Your task to perform on an android device: Open a new Chrome window Image 0: 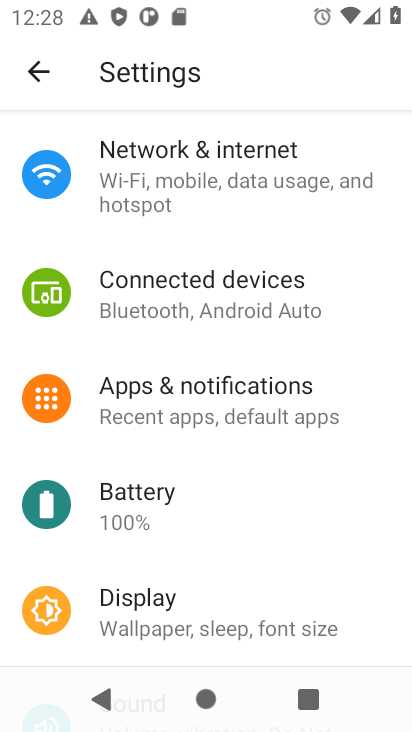
Step 0: press home button
Your task to perform on an android device: Open a new Chrome window Image 1: 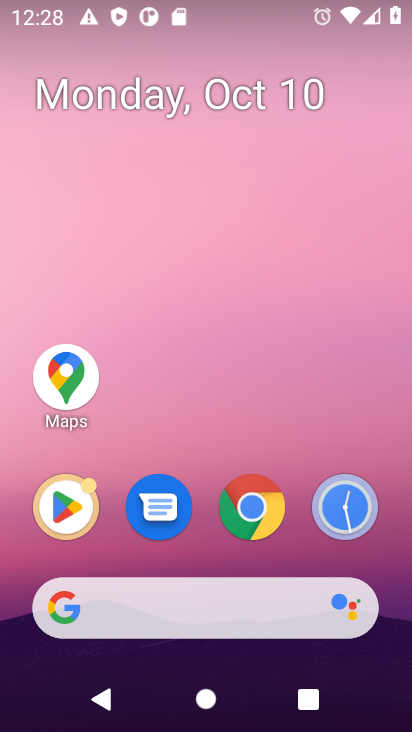
Step 1: drag from (392, 567) to (383, 120)
Your task to perform on an android device: Open a new Chrome window Image 2: 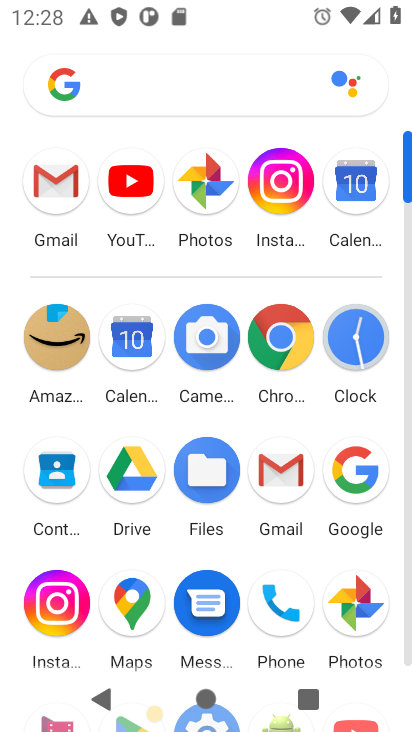
Step 2: click (279, 343)
Your task to perform on an android device: Open a new Chrome window Image 3: 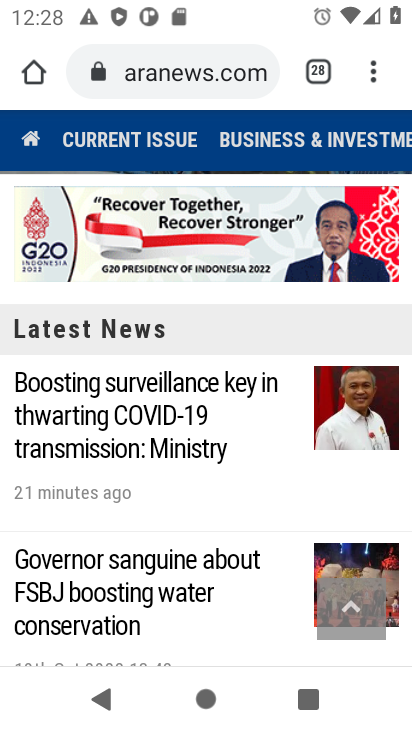
Step 3: click (370, 75)
Your task to perform on an android device: Open a new Chrome window Image 4: 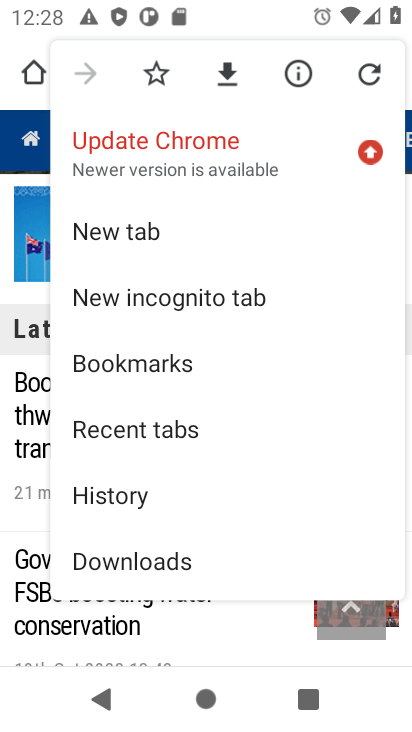
Step 4: click (119, 234)
Your task to perform on an android device: Open a new Chrome window Image 5: 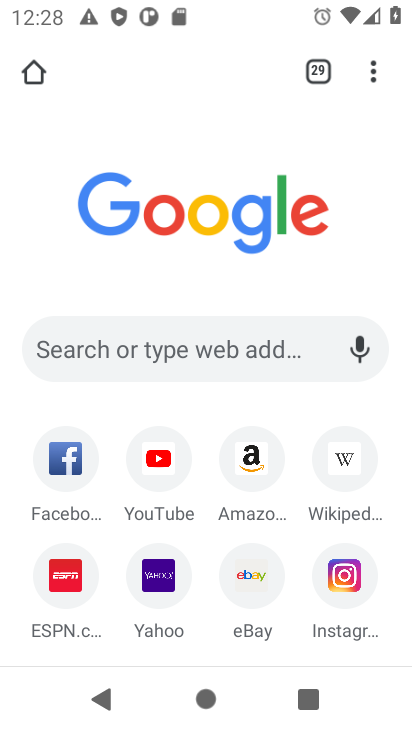
Step 5: task complete